Your task to perform on an android device: Go to privacy settings Image 0: 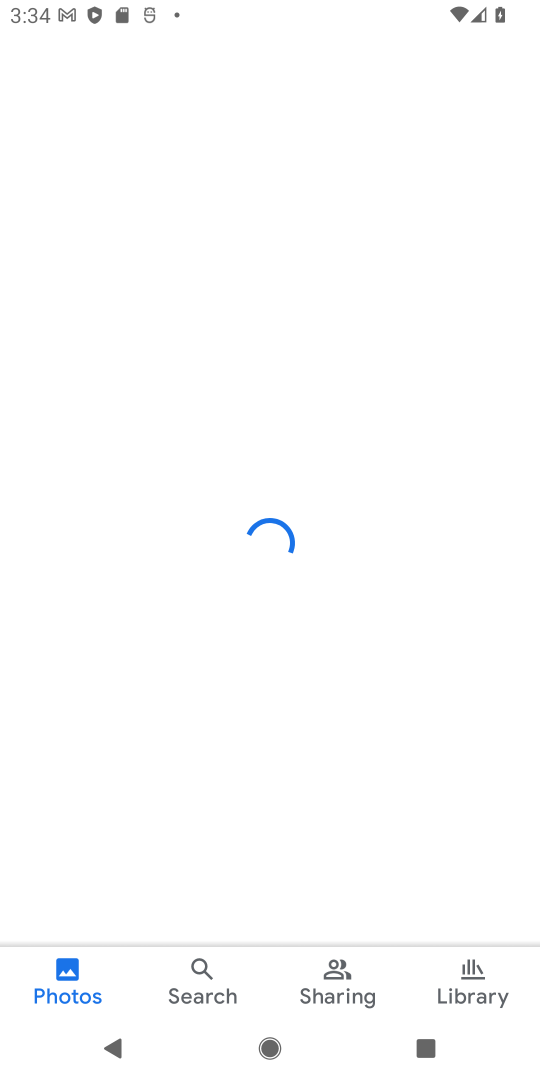
Step 0: press home button
Your task to perform on an android device: Go to privacy settings Image 1: 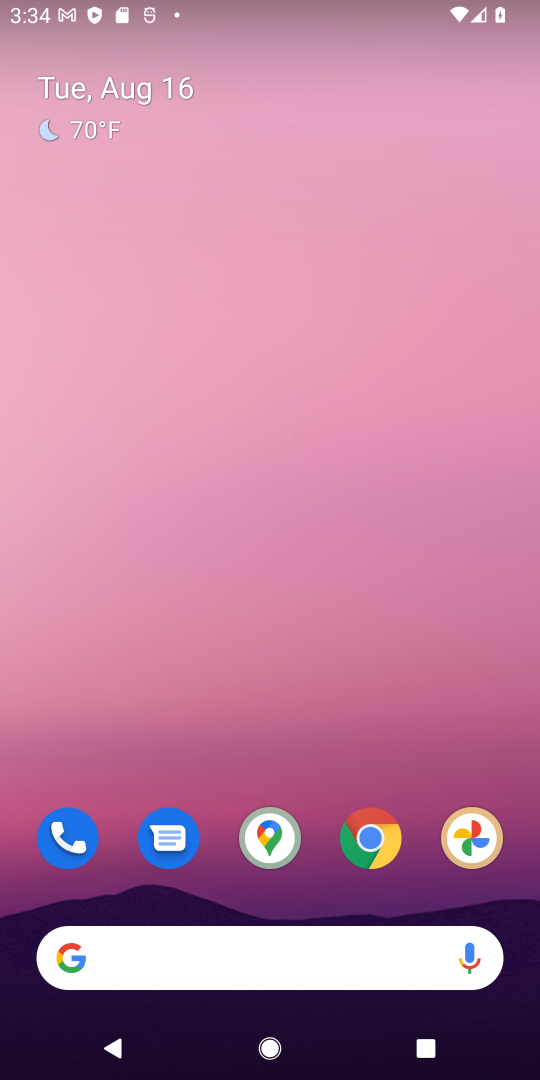
Step 1: drag from (277, 957) to (96, 13)
Your task to perform on an android device: Go to privacy settings Image 2: 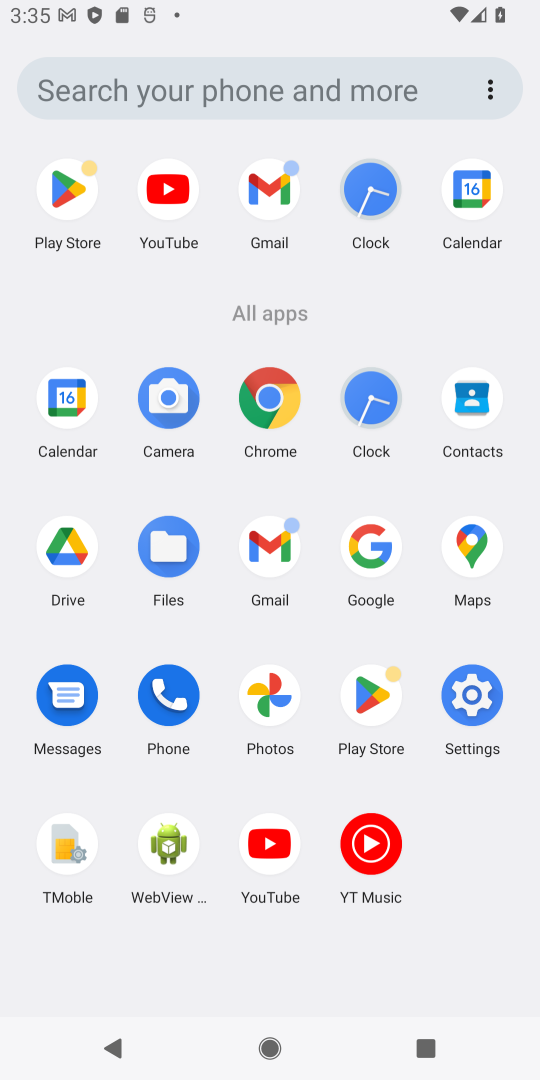
Step 2: click (488, 700)
Your task to perform on an android device: Go to privacy settings Image 3: 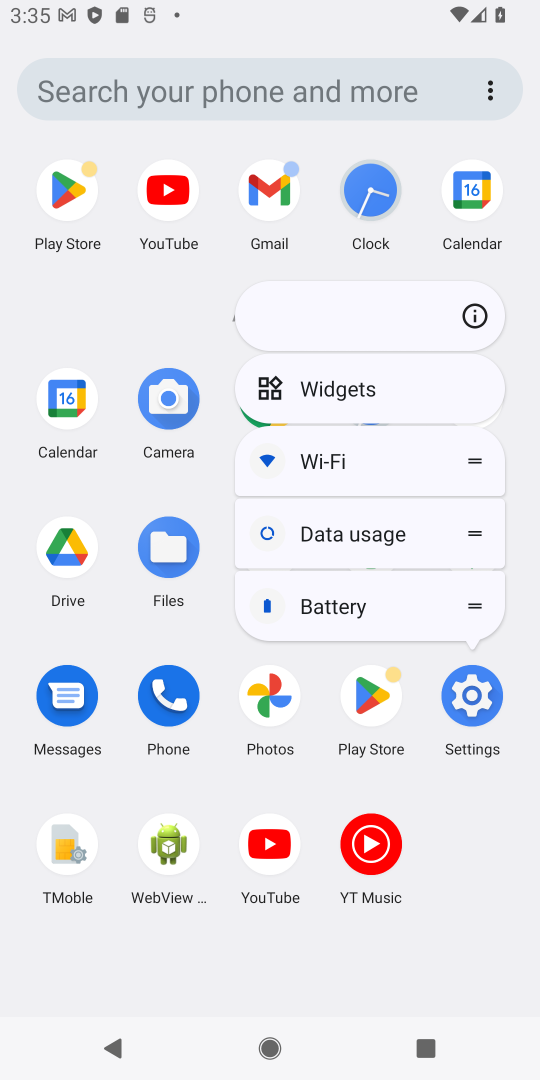
Step 3: click (488, 700)
Your task to perform on an android device: Go to privacy settings Image 4: 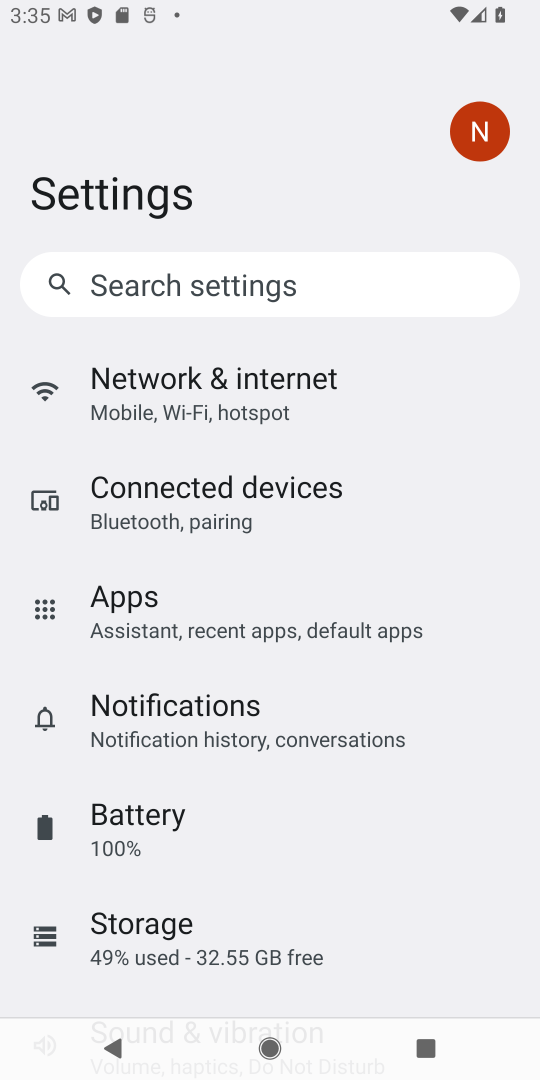
Step 4: drag from (242, 859) to (274, 48)
Your task to perform on an android device: Go to privacy settings Image 5: 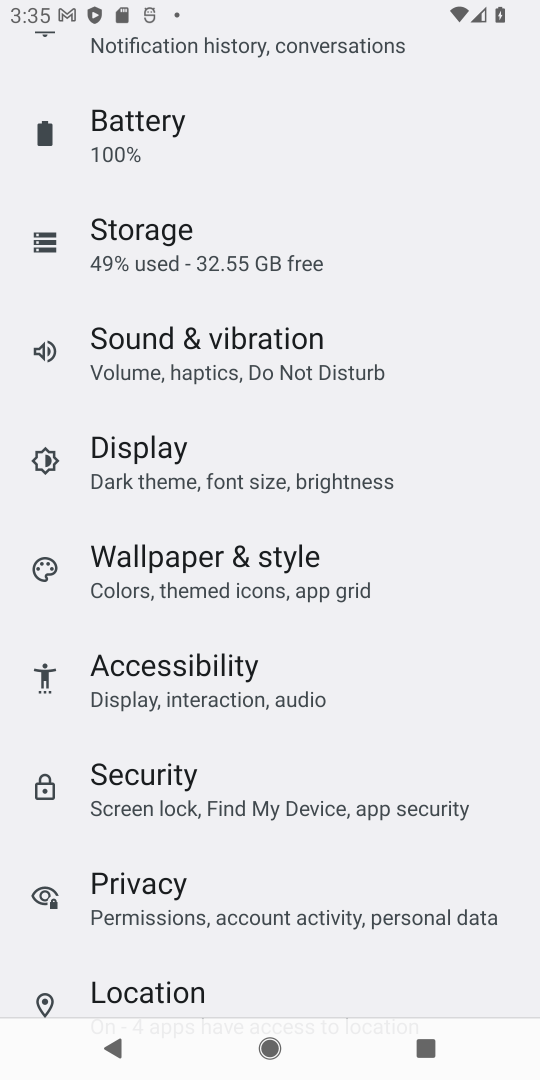
Step 5: click (141, 902)
Your task to perform on an android device: Go to privacy settings Image 6: 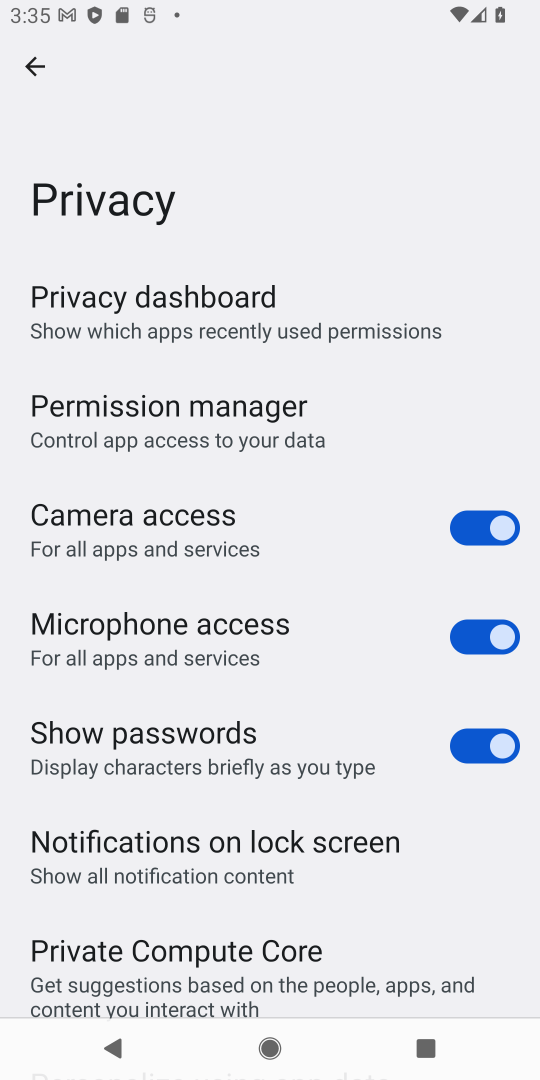
Step 6: task complete